Your task to perform on an android device: check storage Image 0: 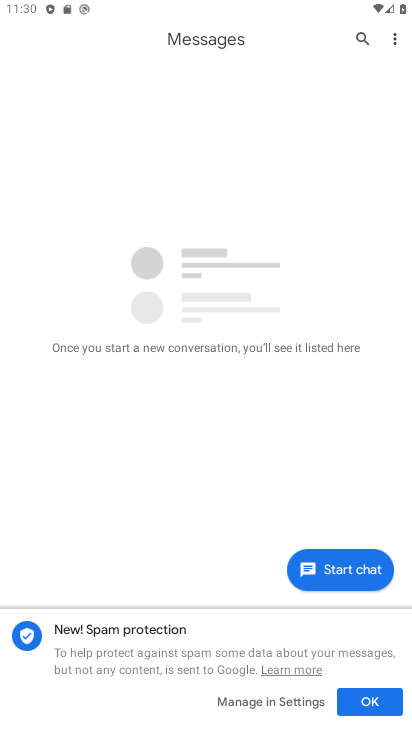
Step 0: press home button
Your task to perform on an android device: check storage Image 1: 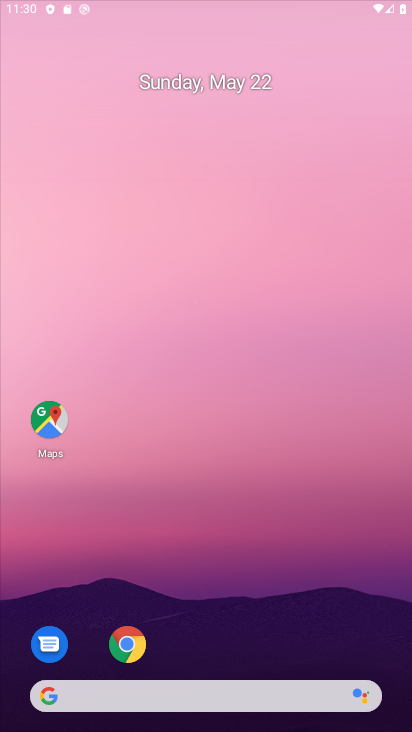
Step 1: drag from (346, 619) to (300, 59)
Your task to perform on an android device: check storage Image 2: 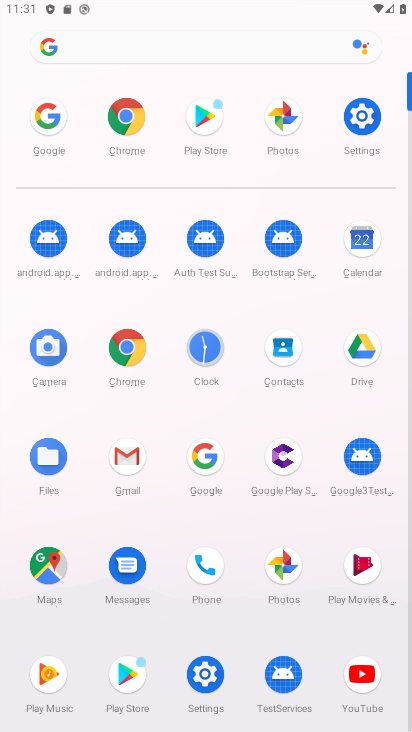
Step 2: click (211, 671)
Your task to perform on an android device: check storage Image 3: 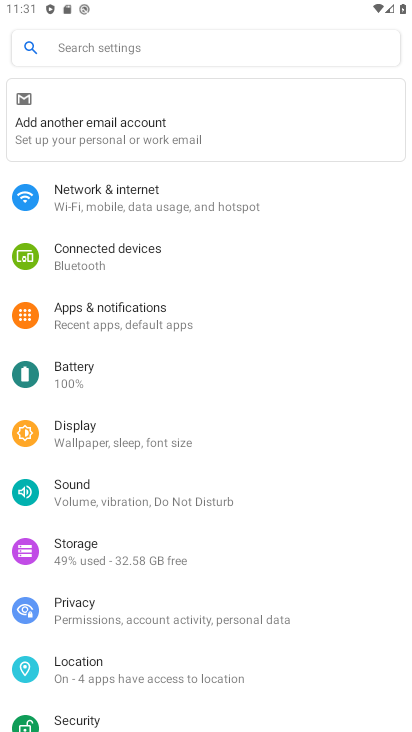
Step 3: click (97, 543)
Your task to perform on an android device: check storage Image 4: 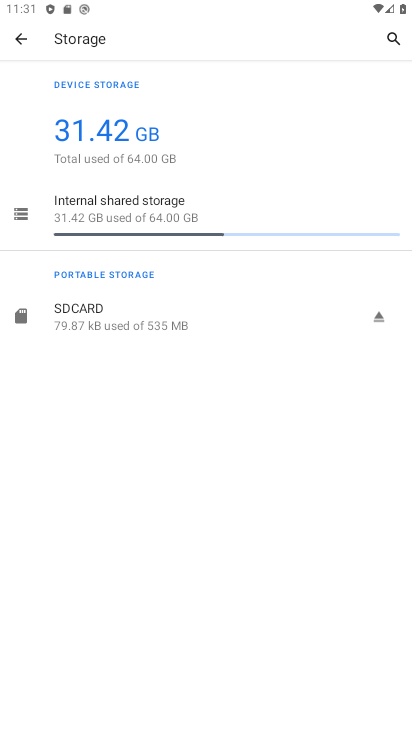
Step 4: click (138, 199)
Your task to perform on an android device: check storage Image 5: 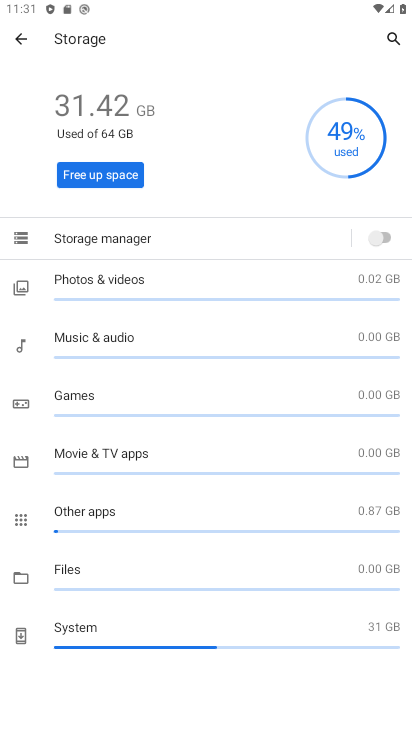
Step 5: task complete